Your task to perform on an android device: Go to Reddit.com Image 0: 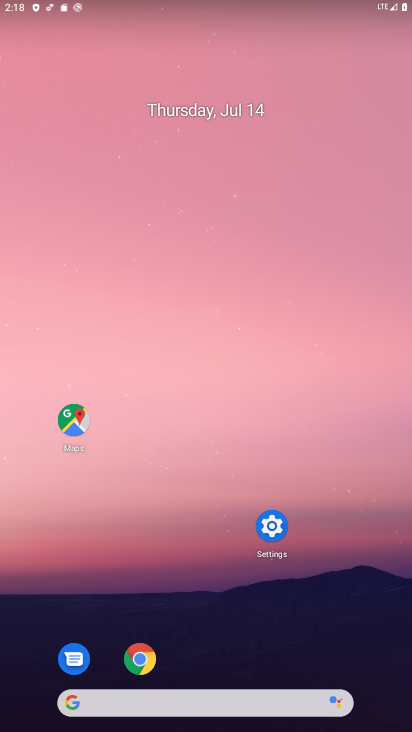
Step 0: click (142, 657)
Your task to perform on an android device: Go to Reddit.com Image 1: 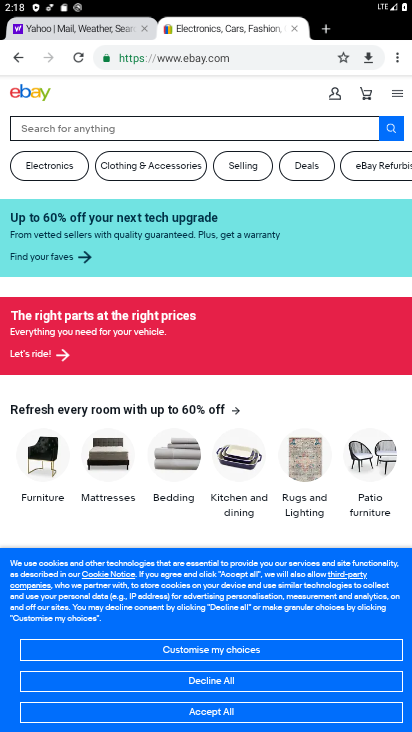
Step 1: click (168, 64)
Your task to perform on an android device: Go to Reddit.com Image 2: 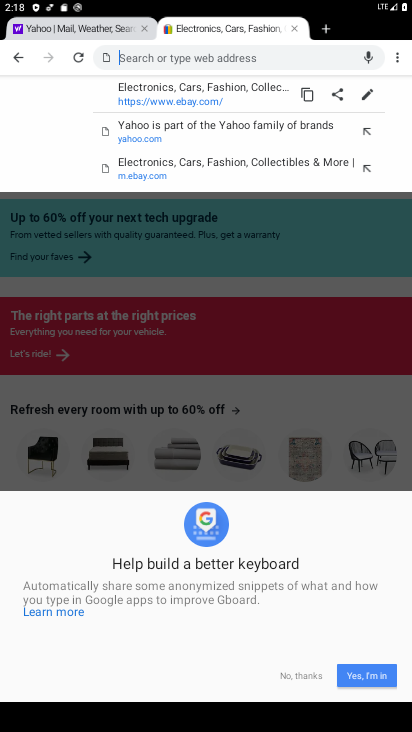
Step 2: click (289, 673)
Your task to perform on an android device: Go to Reddit.com Image 3: 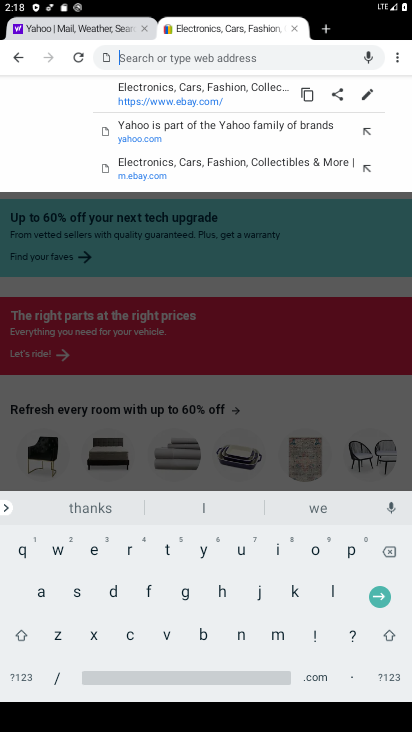
Step 3: click (136, 548)
Your task to perform on an android device: Go to Reddit.com Image 4: 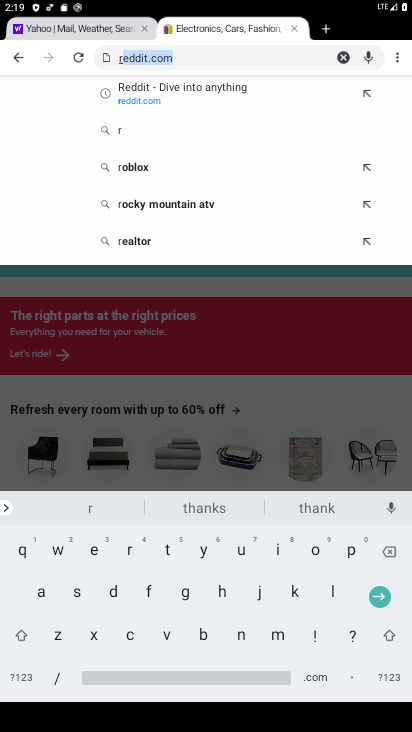
Step 4: click (88, 548)
Your task to perform on an android device: Go to Reddit.com Image 5: 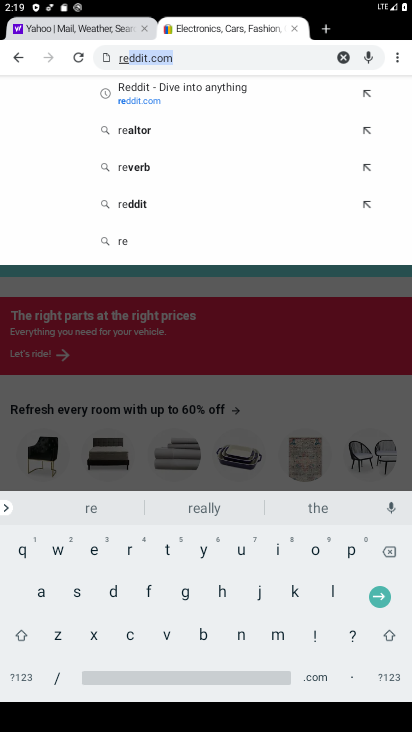
Step 5: click (211, 57)
Your task to perform on an android device: Go to Reddit.com Image 6: 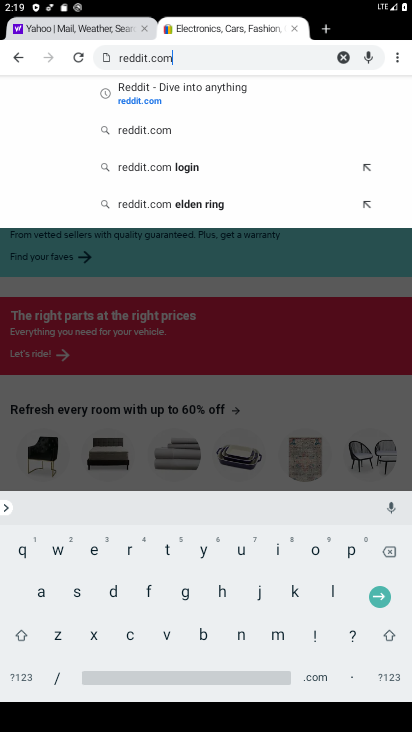
Step 6: click (377, 602)
Your task to perform on an android device: Go to Reddit.com Image 7: 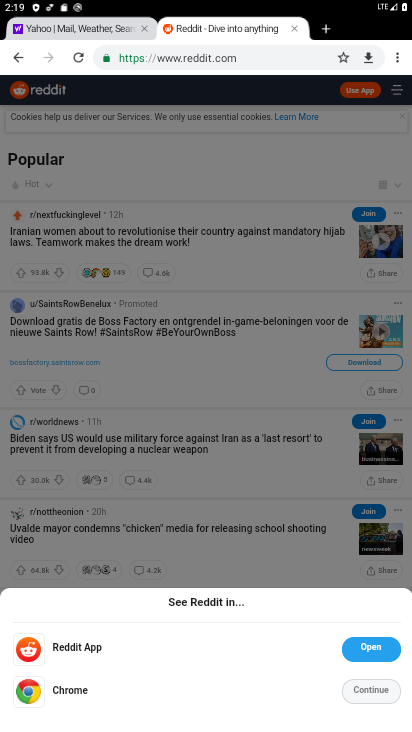
Step 7: click (375, 689)
Your task to perform on an android device: Go to Reddit.com Image 8: 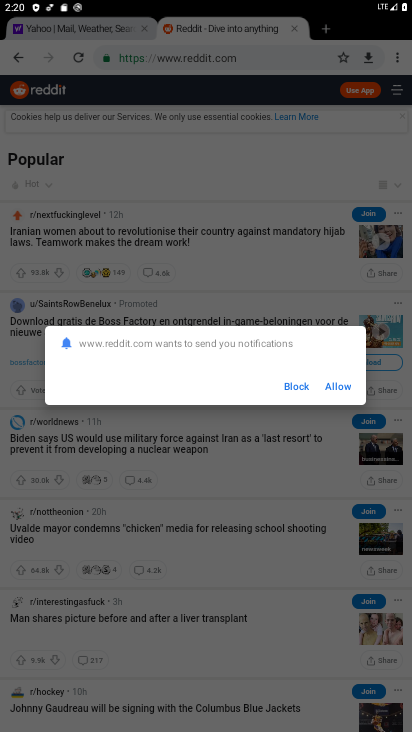
Step 8: click (327, 379)
Your task to perform on an android device: Go to Reddit.com Image 9: 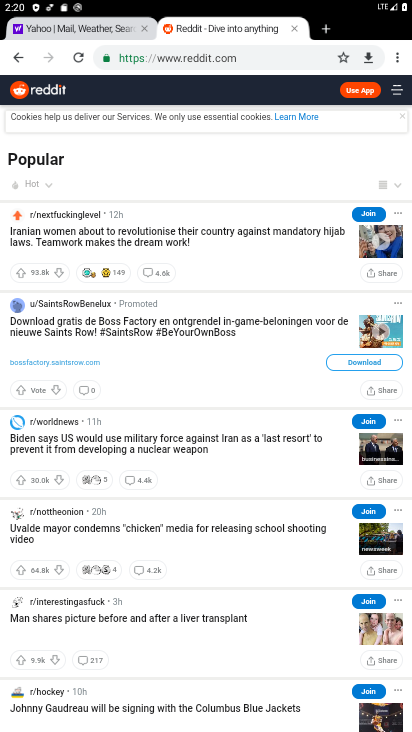
Step 9: task complete